Your task to perform on an android device: Go to CNN.com Image 0: 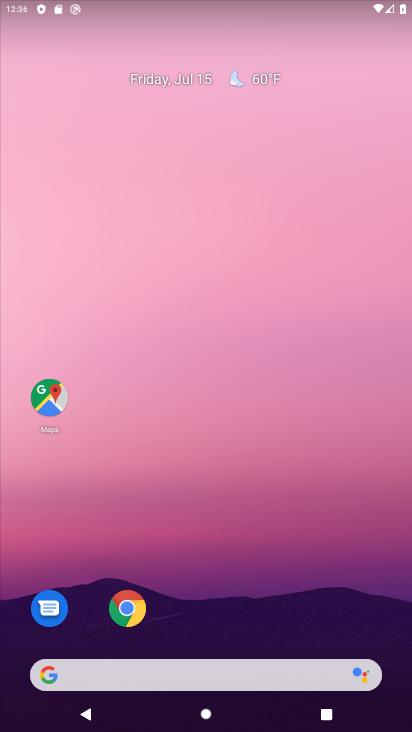
Step 0: drag from (245, 624) to (288, 165)
Your task to perform on an android device: Go to CNN.com Image 1: 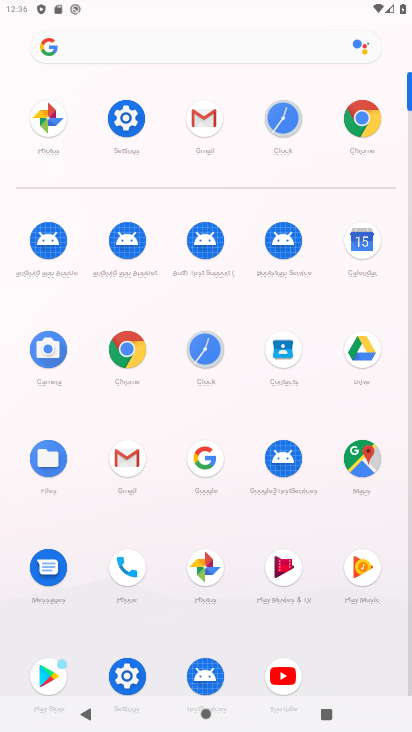
Step 1: click (131, 351)
Your task to perform on an android device: Go to CNN.com Image 2: 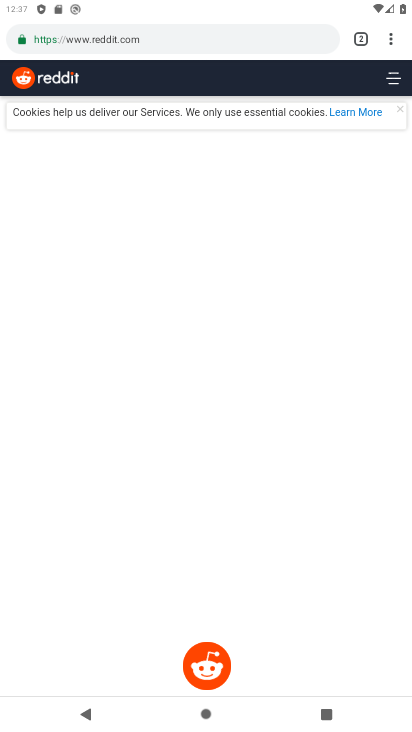
Step 2: click (170, 29)
Your task to perform on an android device: Go to CNN.com Image 3: 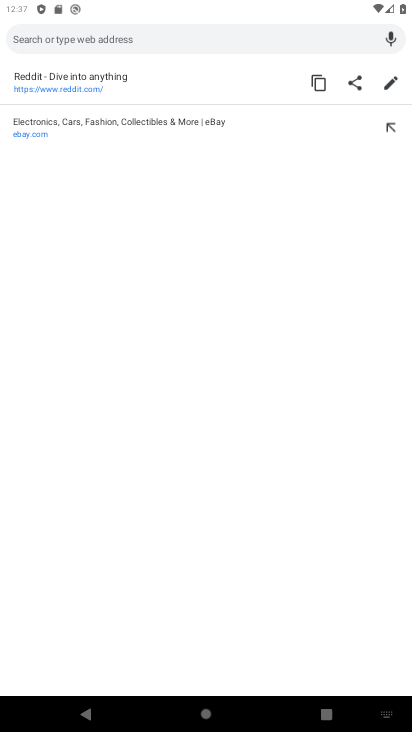
Step 3: type " CNN.com"
Your task to perform on an android device: Go to CNN.com Image 4: 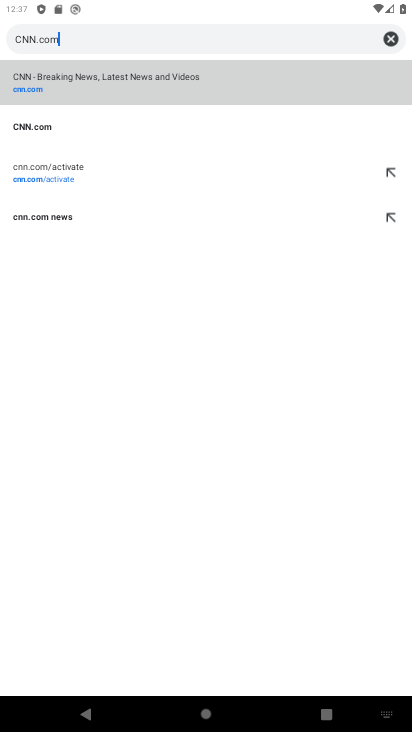
Step 4: click (17, 88)
Your task to perform on an android device: Go to CNN.com Image 5: 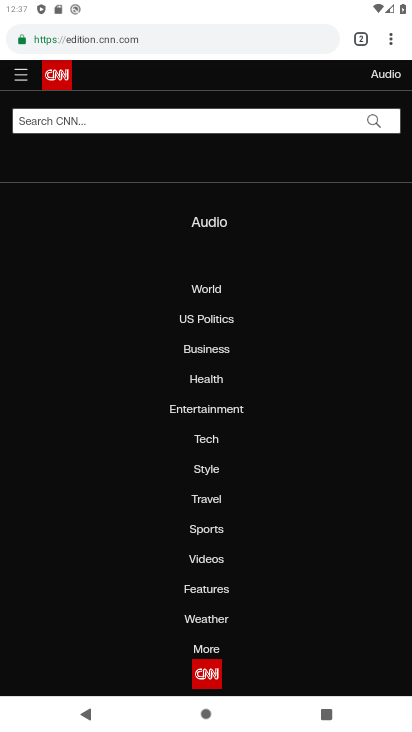
Step 5: task complete